Your task to perform on an android device: Open my contact list Image 0: 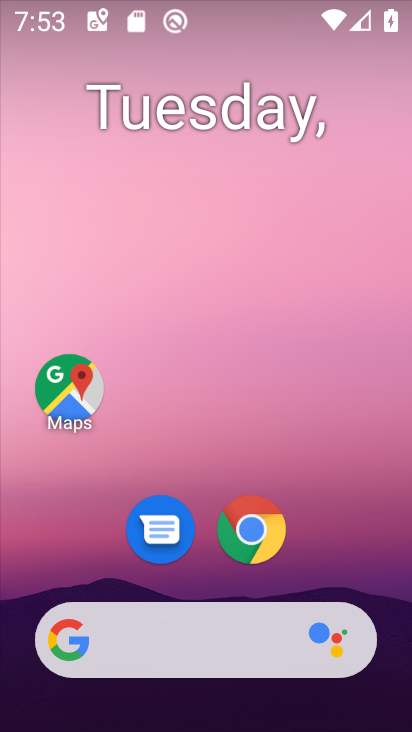
Step 0: drag from (195, 461) to (270, 6)
Your task to perform on an android device: Open my contact list Image 1: 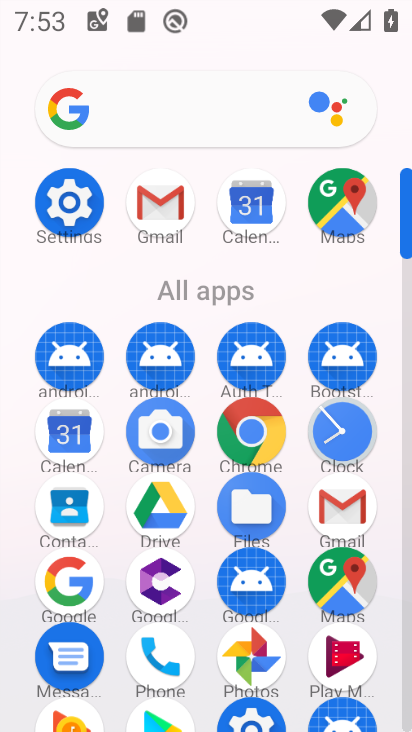
Step 1: click (81, 511)
Your task to perform on an android device: Open my contact list Image 2: 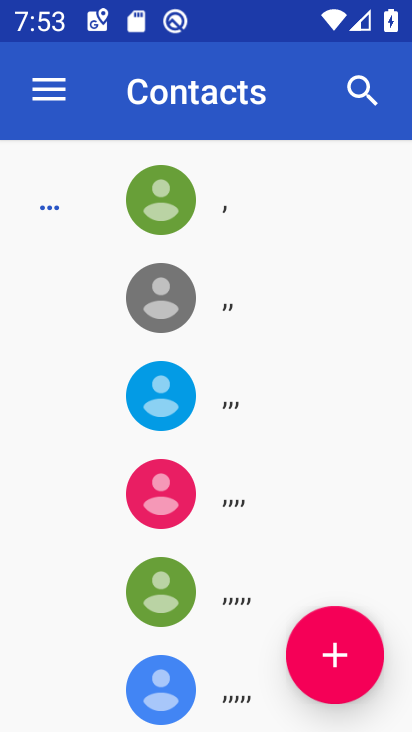
Step 2: task complete